Your task to perform on an android device: Show me popular videos on Youtube Image 0: 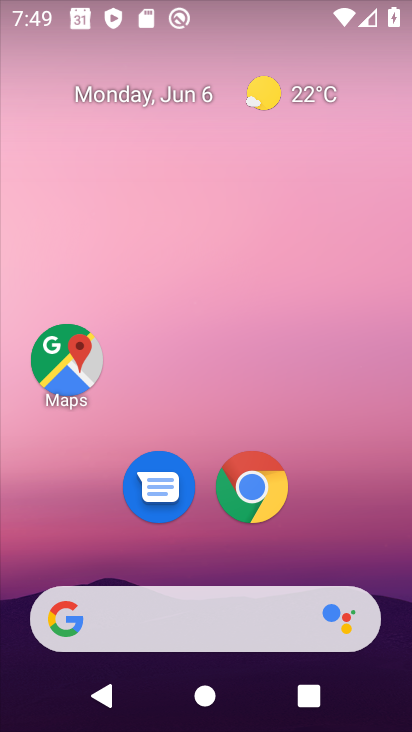
Step 0: drag from (325, 451) to (323, 132)
Your task to perform on an android device: Show me popular videos on Youtube Image 1: 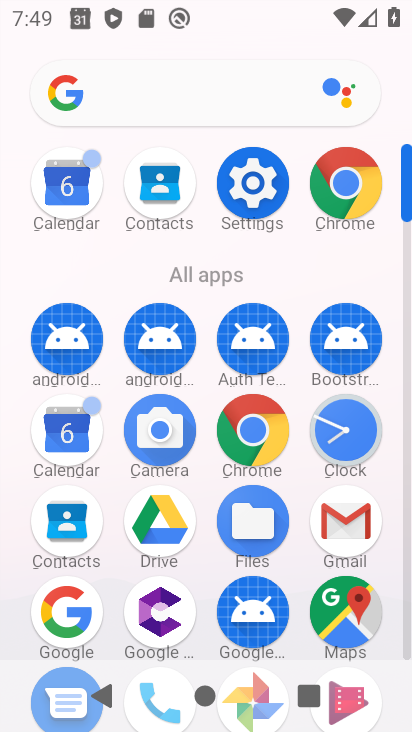
Step 1: drag from (170, 640) to (219, 217)
Your task to perform on an android device: Show me popular videos on Youtube Image 2: 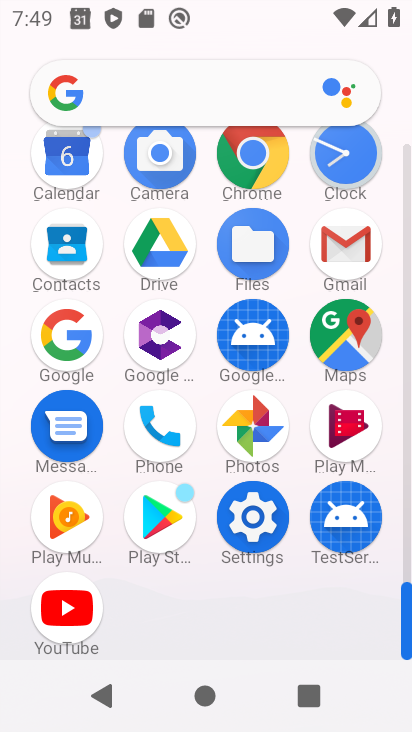
Step 2: click (59, 628)
Your task to perform on an android device: Show me popular videos on Youtube Image 3: 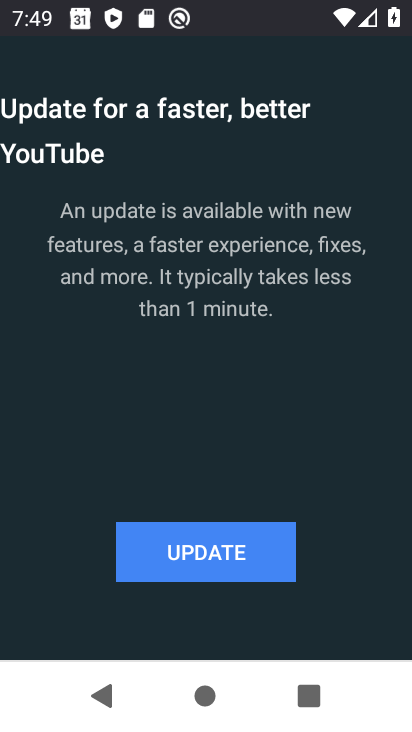
Step 3: click (216, 558)
Your task to perform on an android device: Show me popular videos on Youtube Image 4: 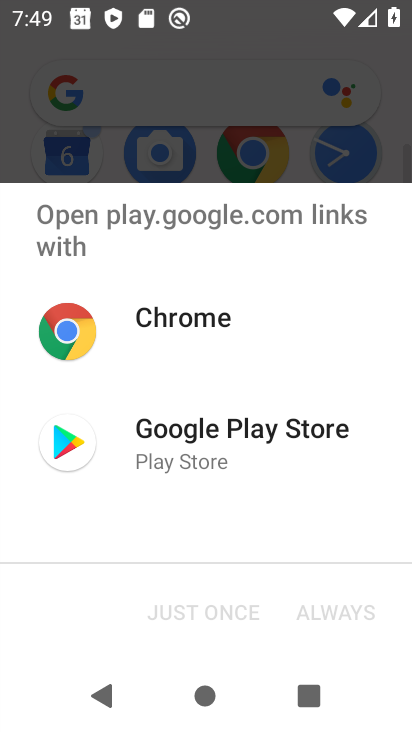
Step 4: click (225, 444)
Your task to perform on an android device: Show me popular videos on Youtube Image 5: 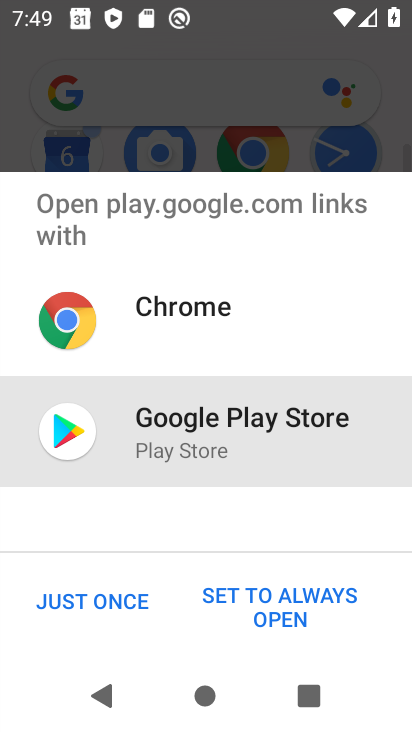
Step 5: click (106, 601)
Your task to perform on an android device: Show me popular videos on Youtube Image 6: 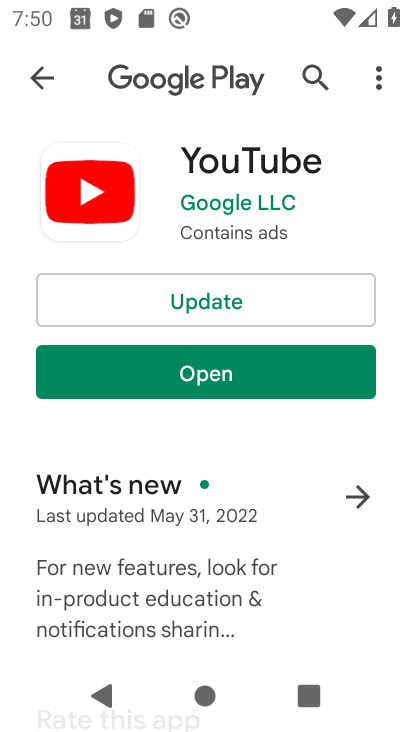
Step 6: click (256, 288)
Your task to perform on an android device: Show me popular videos on Youtube Image 7: 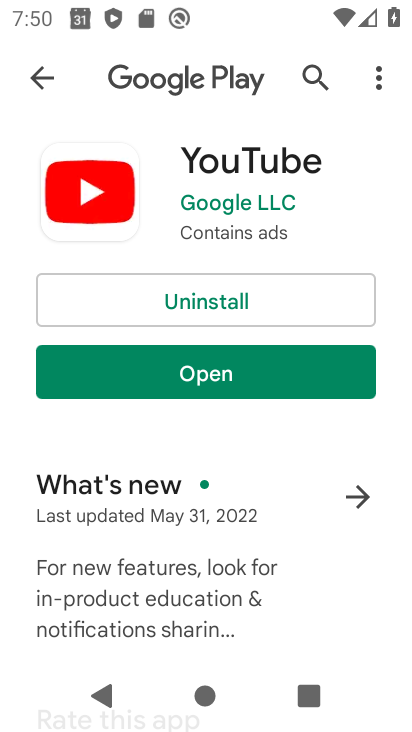
Step 7: click (231, 375)
Your task to perform on an android device: Show me popular videos on Youtube Image 8: 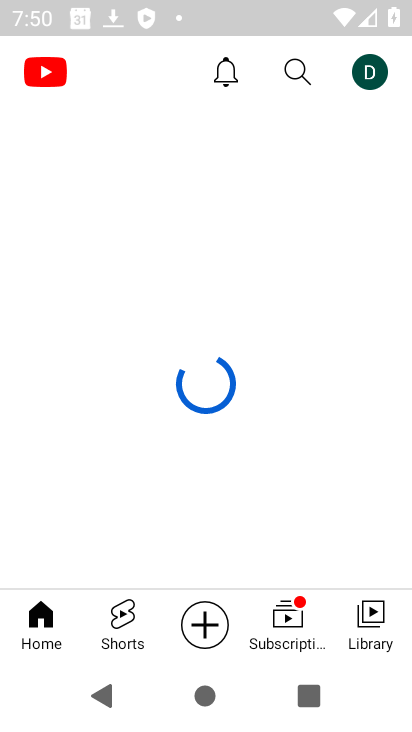
Step 8: task complete